Your task to perform on an android device: Go to Google maps Image 0: 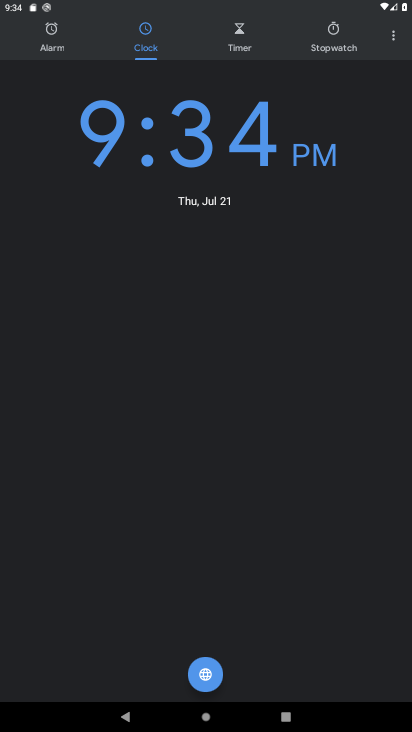
Step 0: press home button
Your task to perform on an android device: Go to Google maps Image 1: 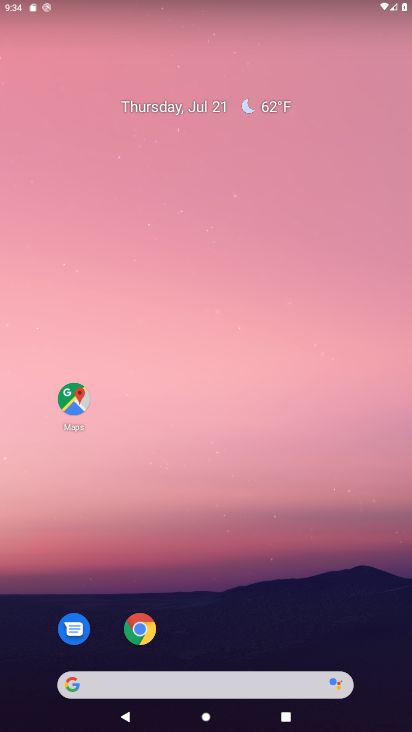
Step 1: drag from (227, 670) to (207, 98)
Your task to perform on an android device: Go to Google maps Image 2: 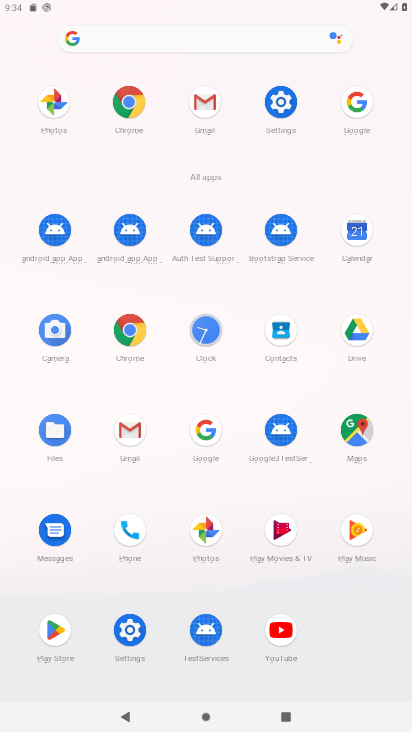
Step 2: click (359, 441)
Your task to perform on an android device: Go to Google maps Image 3: 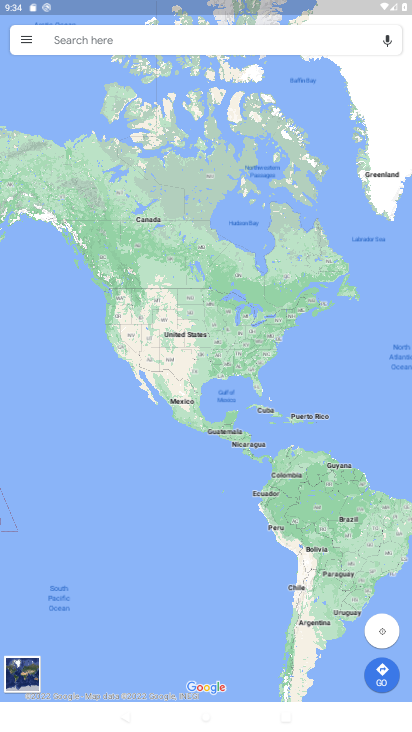
Step 3: task complete